Your task to perform on an android device: Open battery settings Image 0: 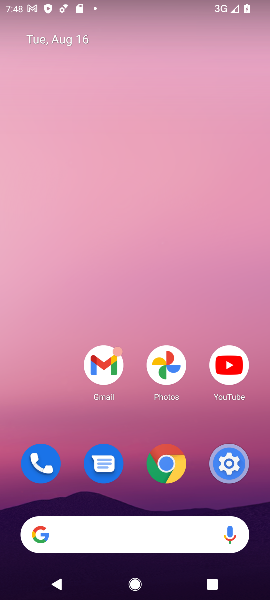
Step 0: drag from (102, 349) to (89, 17)
Your task to perform on an android device: Open battery settings Image 1: 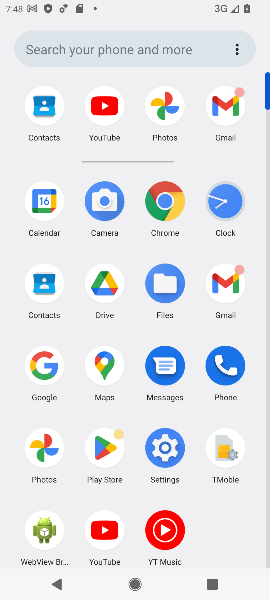
Step 1: click (170, 445)
Your task to perform on an android device: Open battery settings Image 2: 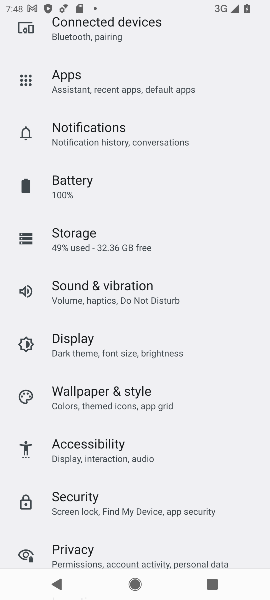
Step 2: click (77, 190)
Your task to perform on an android device: Open battery settings Image 3: 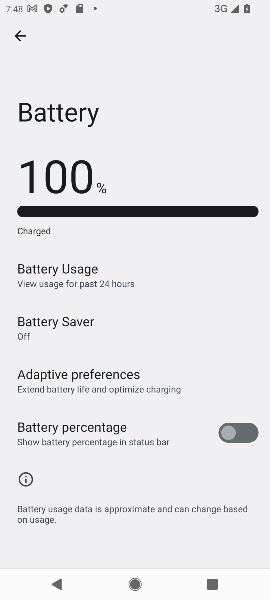
Step 3: task complete